Your task to perform on an android device: turn on the 24-hour format for clock Image 0: 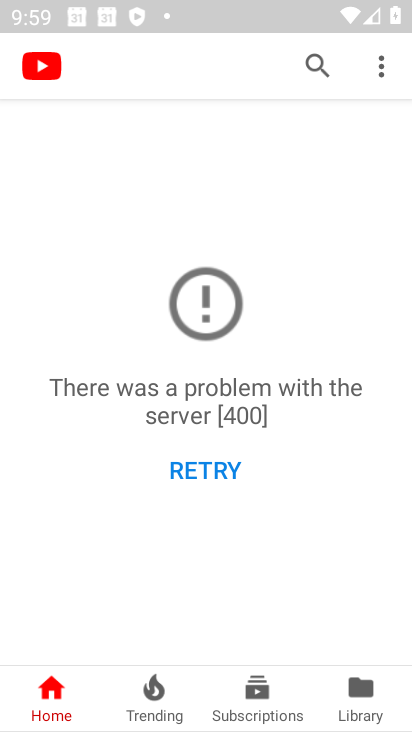
Step 0: press home button
Your task to perform on an android device: turn on the 24-hour format for clock Image 1: 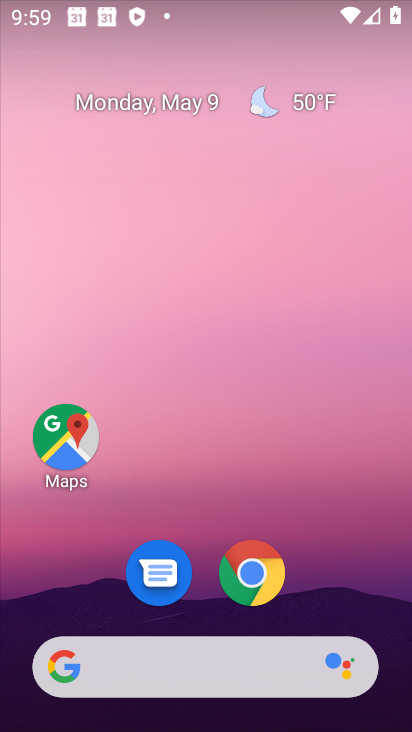
Step 1: drag from (364, 571) to (256, 114)
Your task to perform on an android device: turn on the 24-hour format for clock Image 2: 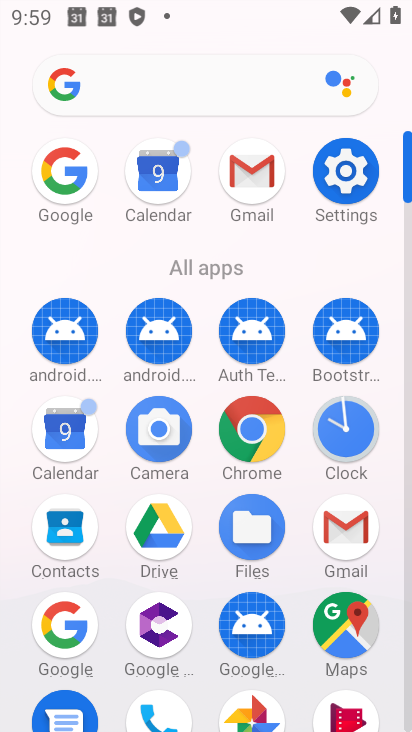
Step 2: click (337, 428)
Your task to perform on an android device: turn on the 24-hour format for clock Image 3: 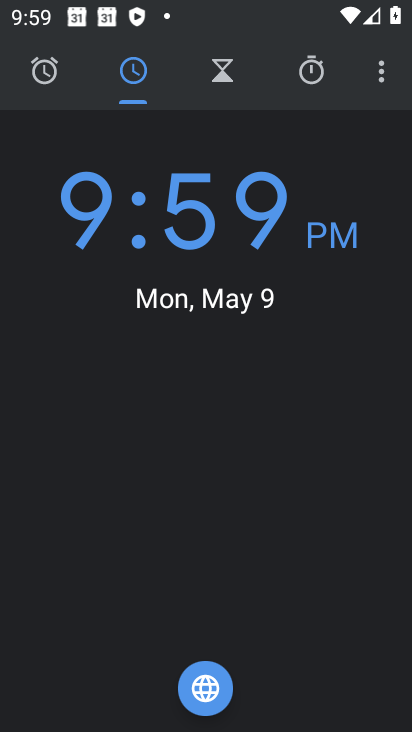
Step 3: click (382, 79)
Your task to perform on an android device: turn on the 24-hour format for clock Image 4: 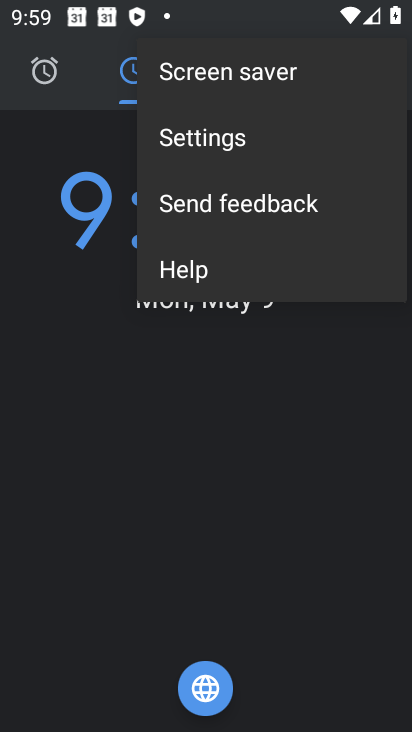
Step 4: click (208, 130)
Your task to perform on an android device: turn on the 24-hour format for clock Image 5: 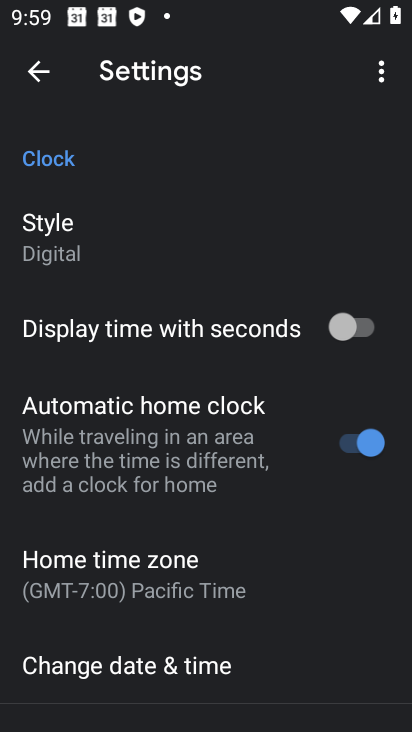
Step 5: click (202, 683)
Your task to perform on an android device: turn on the 24-hour format for clock Image 6: 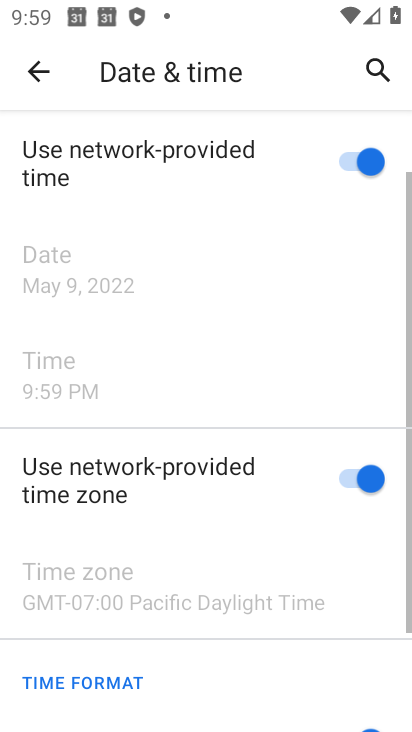
Step 6: drag from (211, 656) to (167, 79)
Your task to perform on an android device: turn on the 24-hour format for clock Image 7: 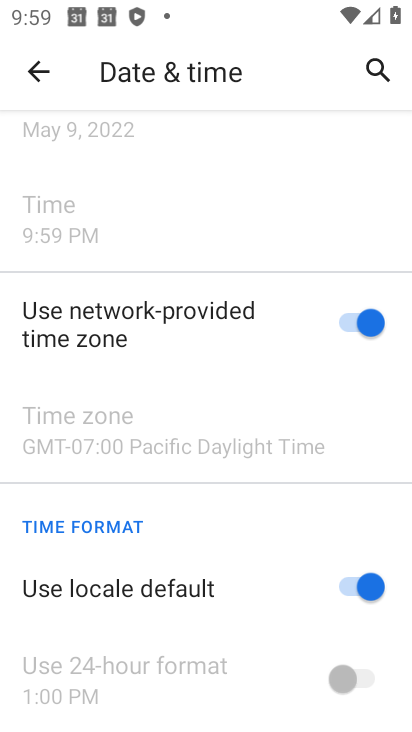
Step 7: click (354, 576)
Your task to perform on an android device: turn on the 24-hour format for clock Image 8: 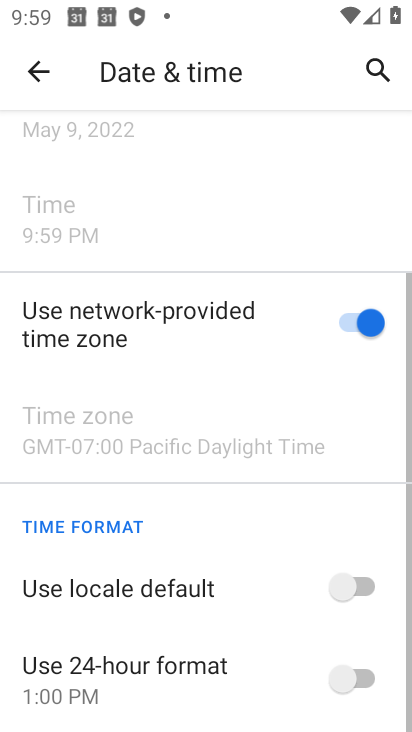
Step 8: click (346, 685)
Your task to perform on an android device: turn on the 24-hour format for clock Image 9: 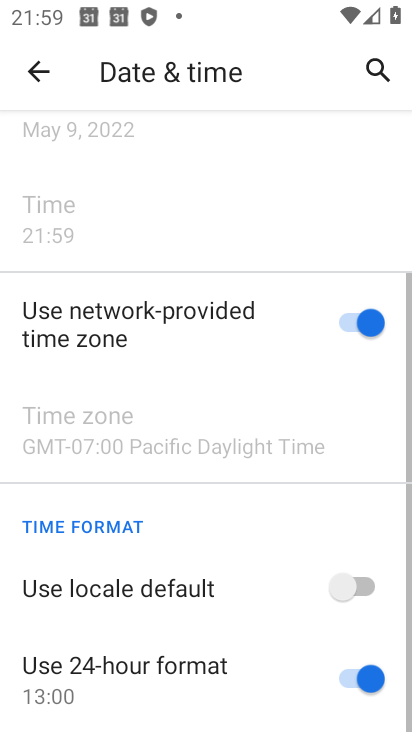
Step 9: task complete